Your task to perform on an android device: open wifi settings Image 0: 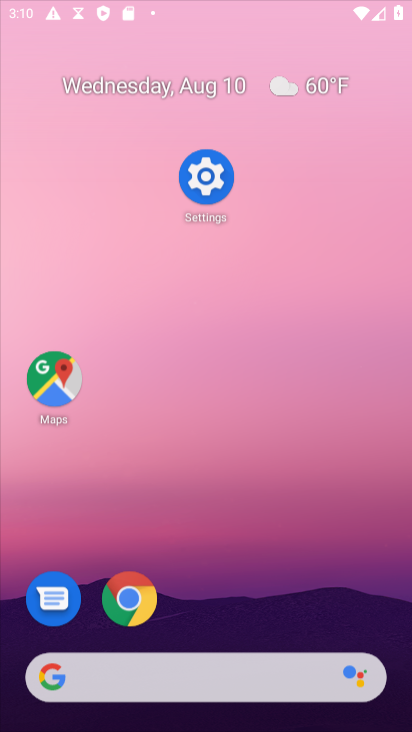
Step 0: press home button
Your task to perform on an android device: open wifi settings Image 1: 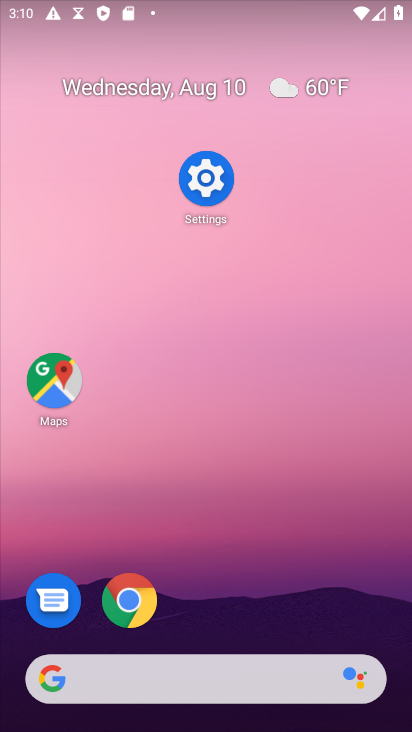
Step 1: click (208, 191)
Your task to perform on an android device: open wifi settings Image 2: 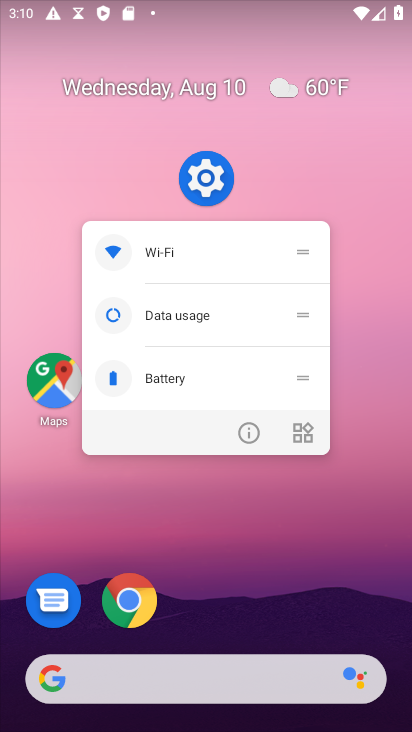
Step 2: click (208, 191)
Your task to perform on an android device: open wifi settings Image 3: 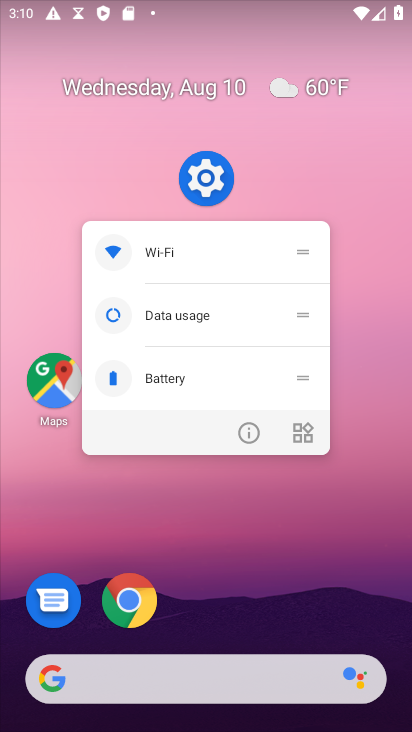
Step 3: click (208, 191)
Your task to perform on an android device: open wifi settings Image 4: 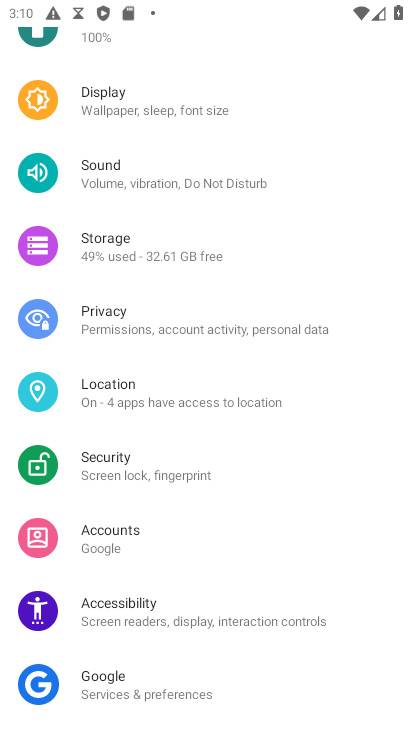
Step 4: drag from (230, 93) to (331, 727)
Your task to perform on an android device: open wifi settings Image 5: 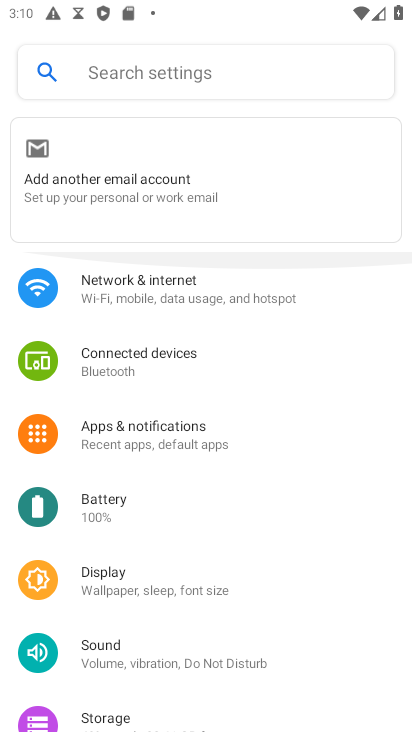
Step 5: drag from (340, 207) to (258, 648)
Your task to perform on an android device: open wifi settings Image 6: 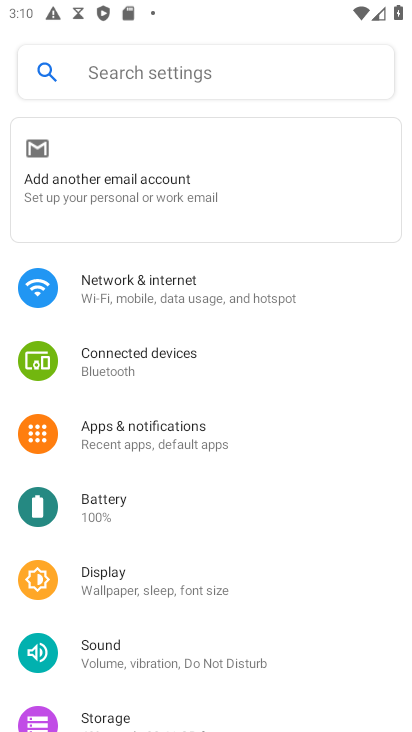
Step 6: click (128, 297)
Your task to perform on an android device: open wifi settings Image 7: 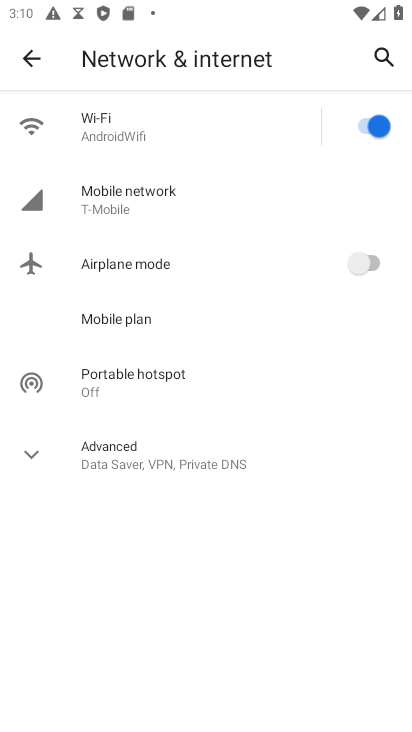
Step 7: click (112, 122)
Your task to perform on an android device: open wifi settings Image 8: 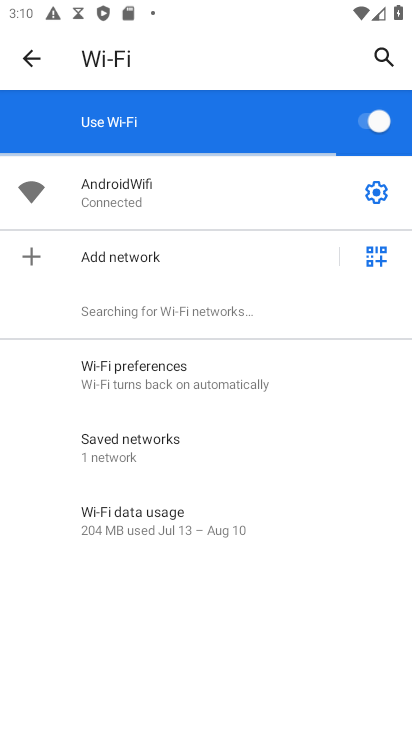
Step 8: click (120, 209)
Your task to perform on an android device: open wifi settings Image 9: 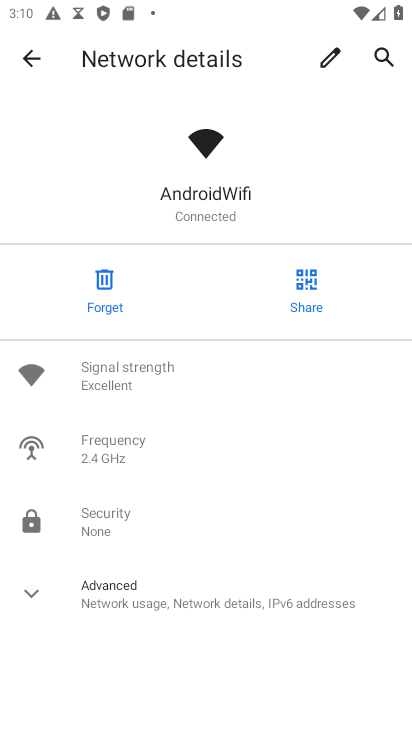
Step 9: task complete